Your task to perform on an android device: Open the map Image 0: 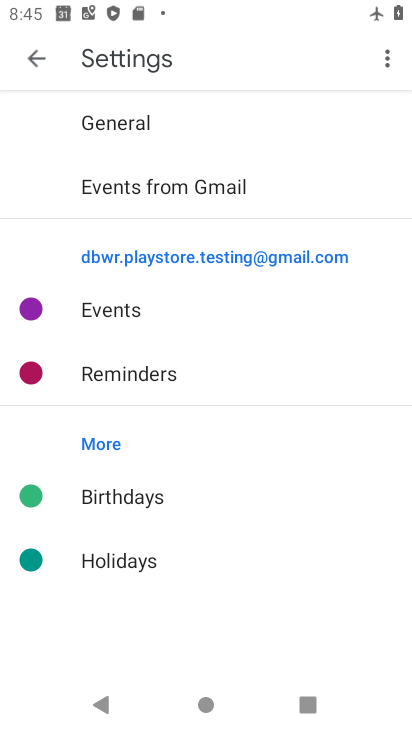
Step 0: press home button
Your task to perform on an android device: Open the map Image 1: 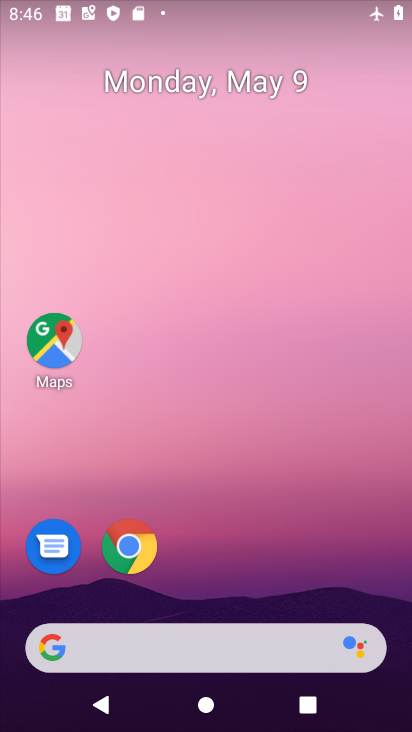
Step 1: click (47, 345)
Your task to perform on an android device: Open the map Image 2: 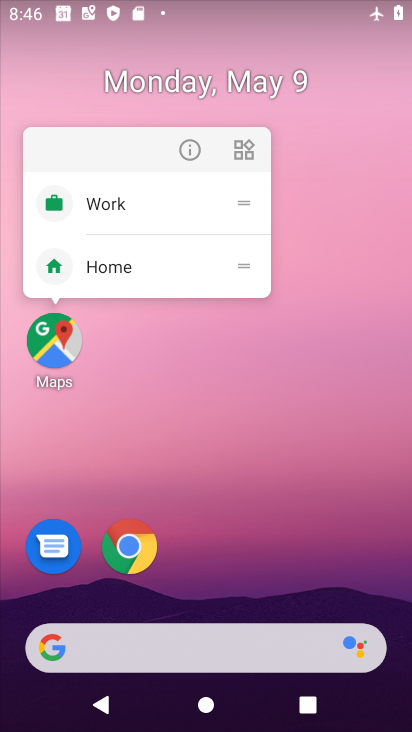
Step 2: click (53, 348)
Your task to perform on an android device: Open the map Image 3: 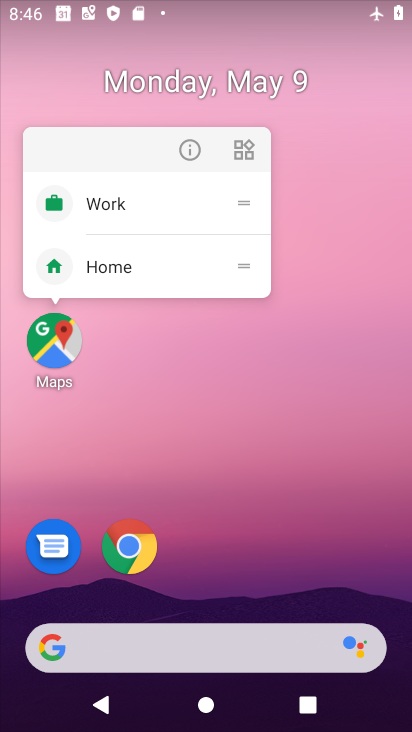
Step 3: click (54, 348)
Your task to perform on an android device: Open the map Image 4: 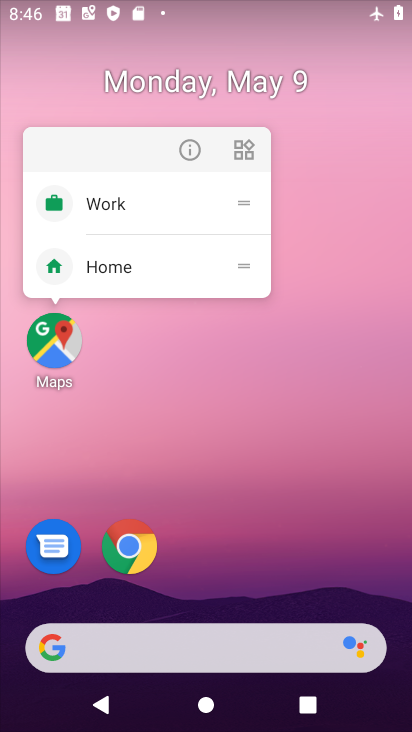
Step 4: click (54, 348)
Your task to perform on an android device: Open the map Image 5: 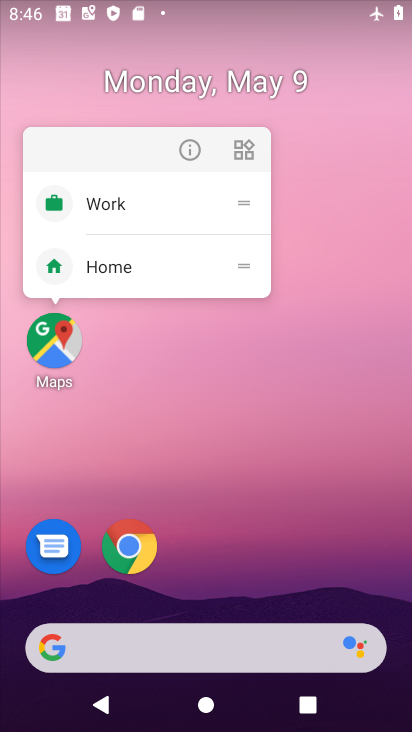
Step 5: click (54, 348)
Your task to perform on an android device: Open the map Image 6: 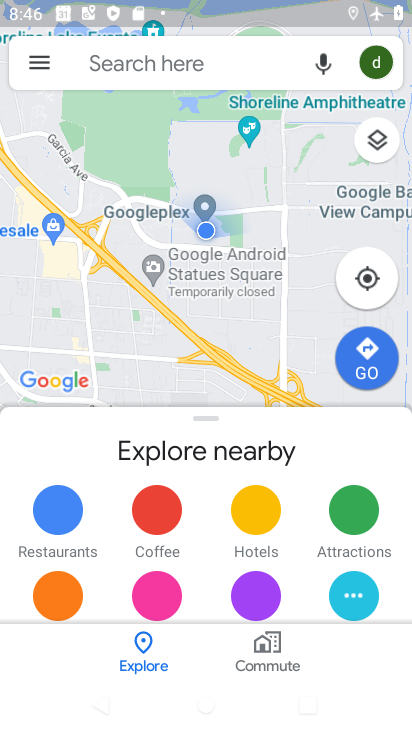
Step 6: task complete